Your task to perform on an android device: turn on the 12-hour format for clock Image 0: 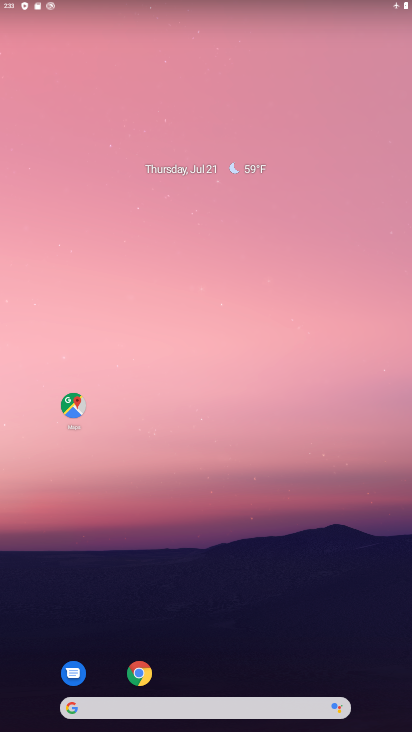
Step 0: drag from (382, 667) to (354, 162)
Your task to perform on an android device: turn on the 12-hour format for clock Image 1: 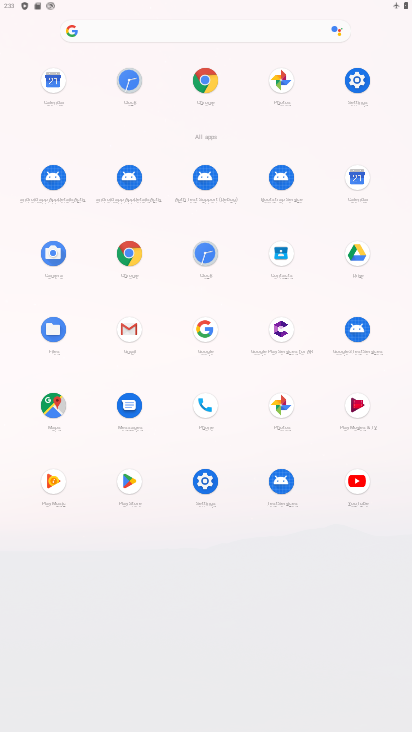
Step 1: click (203, 252)
Your task to perform on an android device: turn on the 12-hour format for clock Image 2: 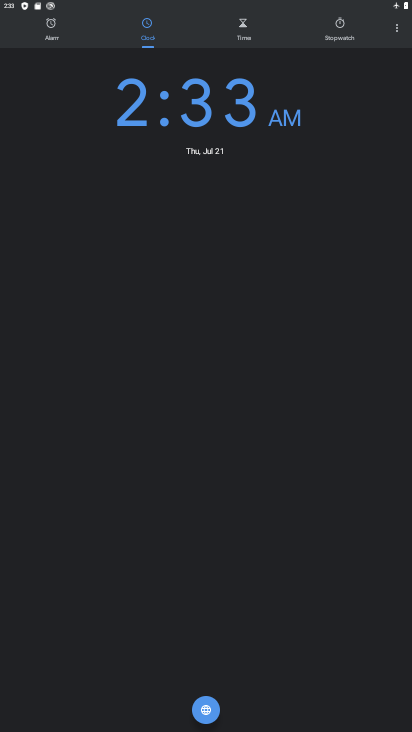
Step 2: click (396, 34)
Your task to perform on an android device: turn on the 12-hour format for clock Image 3: 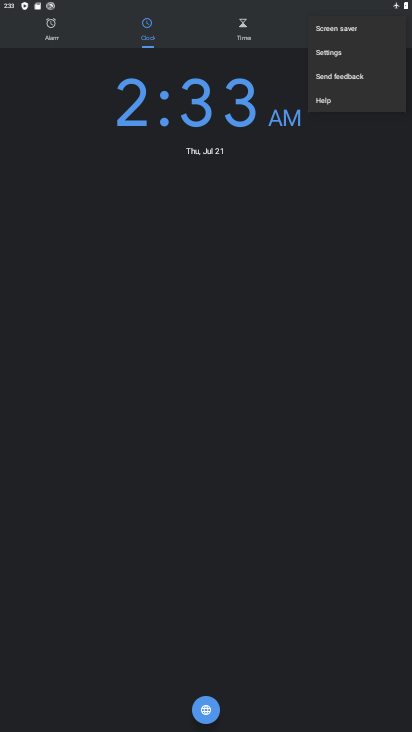
Step 3: click (329, 53)
Your task to perform on an android device: turn on the 12-hour format for clock Image 4: 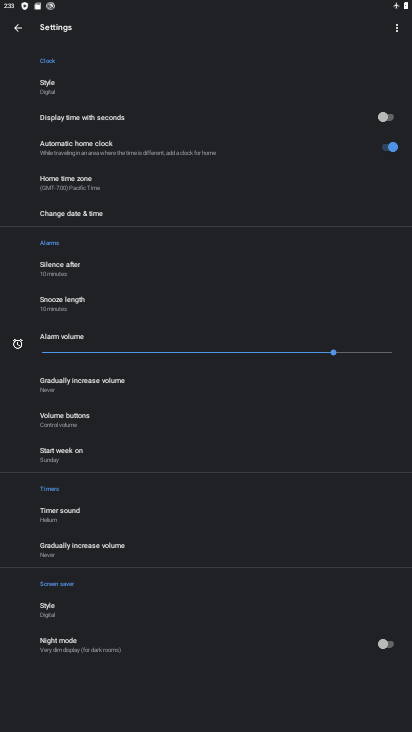
Step 4: click (84, 215)
Your task to perform on an android device: turn on the 12-hour format for clock Image 5: 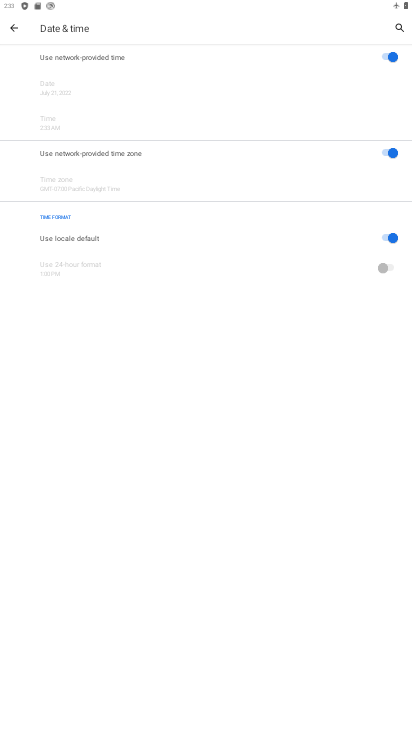
Step 5: task complete